Your task to perform on an android device: all mails in gmail Image 0: 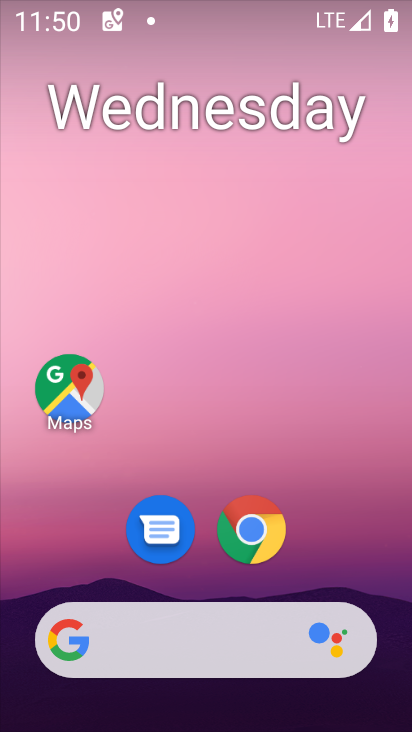
Step 0: drag from (404, 635) to (314, 118)
Your task to perform on an android device: all mails in gmail Image 1: 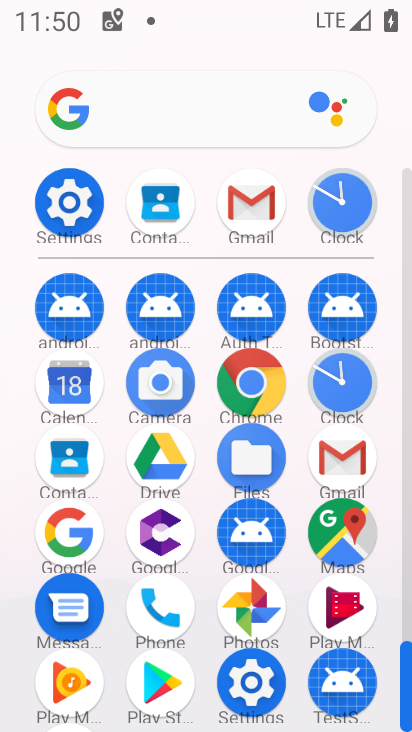
Step 1: click (405, 625)
Your task to perform on an android device: all mails in gmail Image 2: 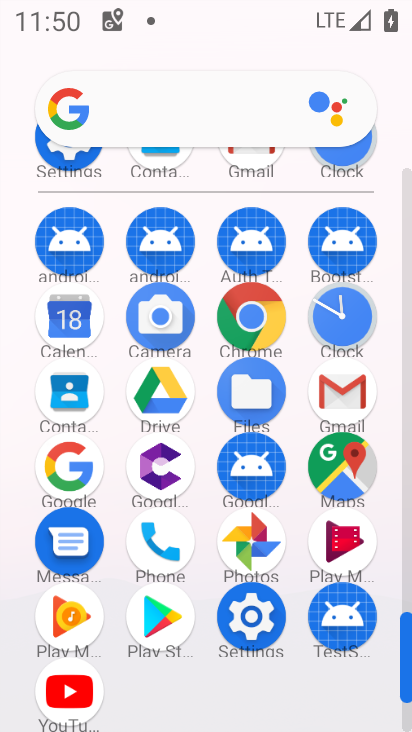
Step 2: click (343, 386)
Your task to perform on an android device: all mails in gmail Image 3: 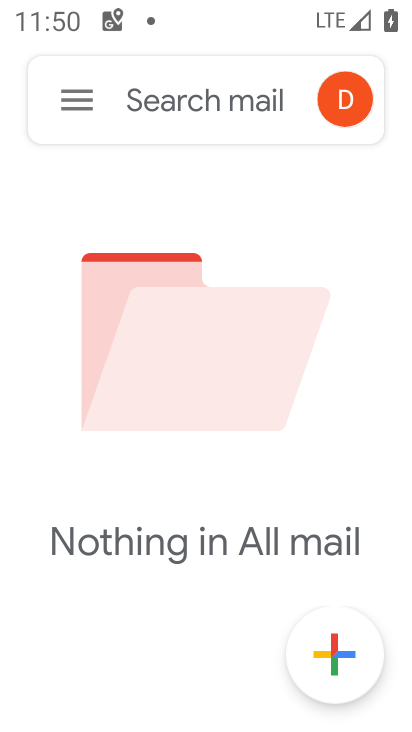
Step 3: click (72, 97)
Your task to perform on an android device: all mails in gmail Image 4: 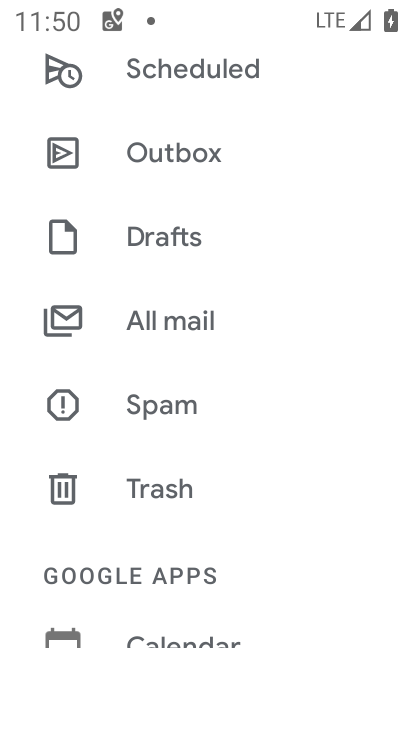
Step 4: click (160, 320)
Your task to perform on an android device: all mails in gmail Image 5: 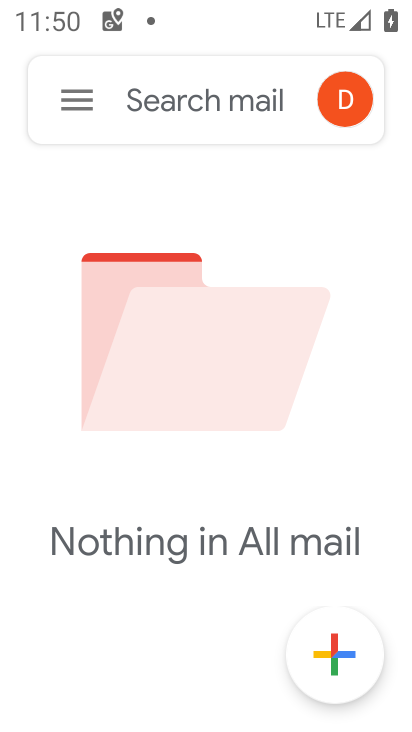
Step 5: task complete